Your task to perform on an android device: Open Google Chrome Image 0: 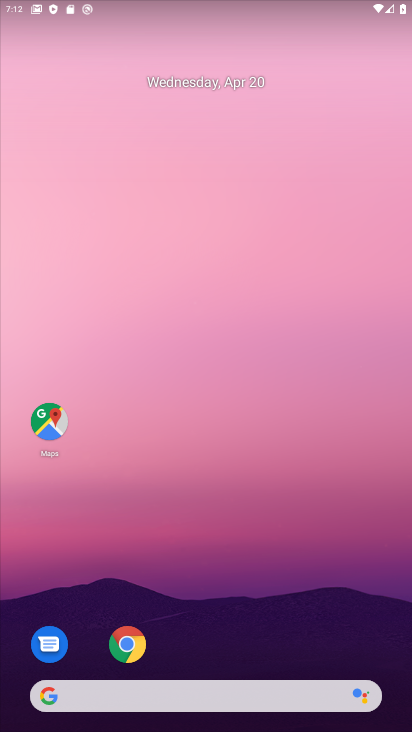
Step 0: drag from (296, 635) to (169, 100)
Your task to perform on an android device: Open Google Chrome Image 1: 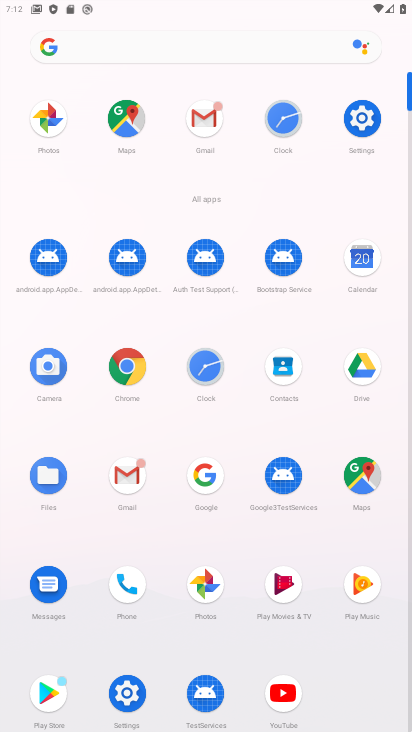
Step 1: click (131, 377)
Your task to perform on an android device: Open Google Chrome Image 2: 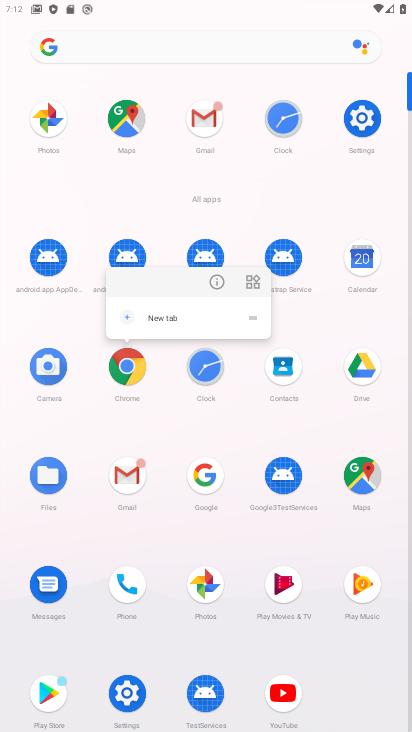
Step 2: click (130, 378)
Your task to perform on an android device: Open Google Chrome Image 3: 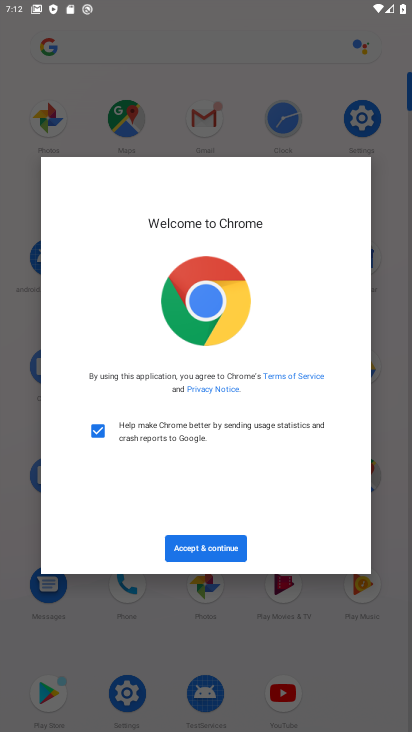
Step 3: click (196, 548)
Your task to perform on an android device: Open Google Chrome Image 4: 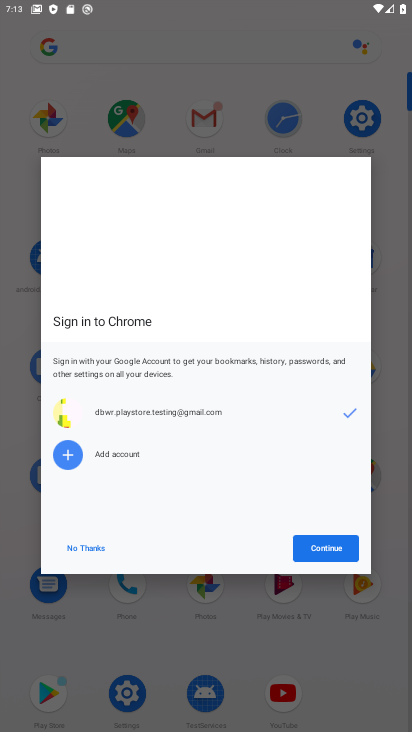
Step 4: click (318, 545)
Your task to perform on an android device: Open Google Chrome Image 5: 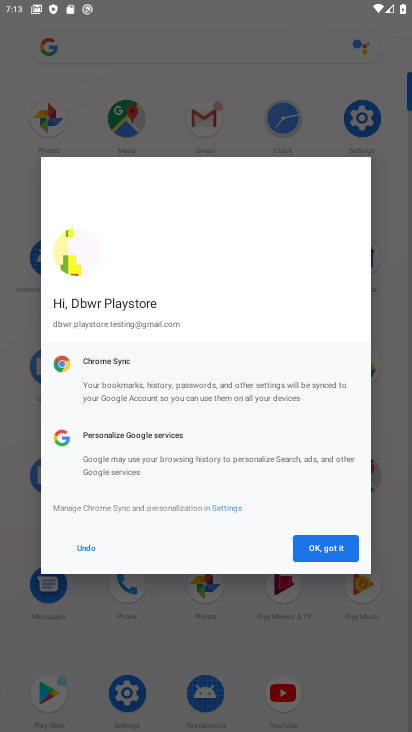
Step 5: click (318, 545)
Your task to perform on an android device: Open Google Chrome Image 6: 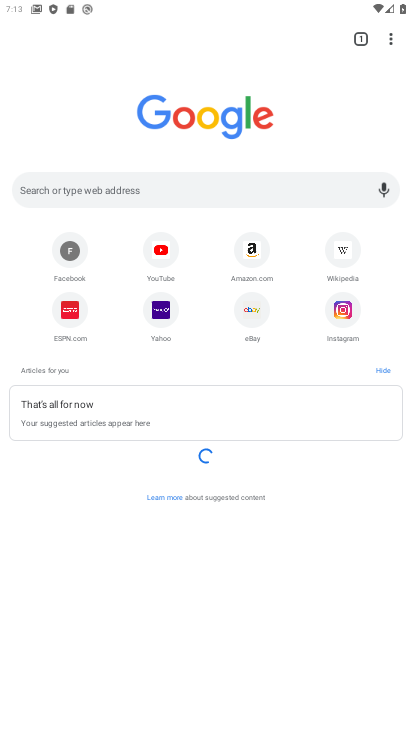
Step 6: task complete